Your task to perform on an android device: Is it going to rain this weekend? Image 0: 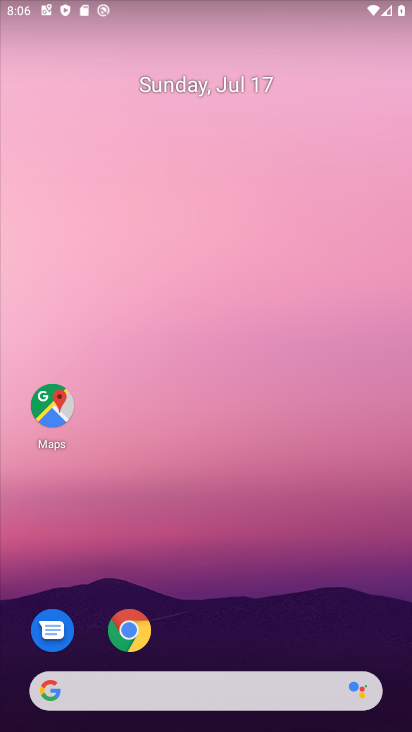
Step 0: click (0, 701)
Your task to perform on an android device: Is it going to rain this weekend? Image 1: 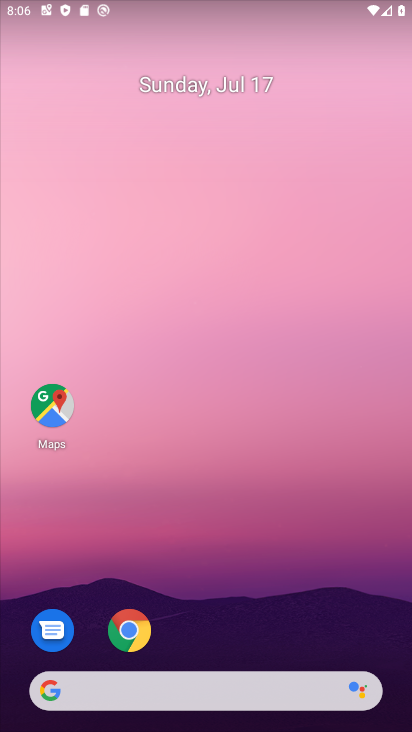
Step 1: click (239, 693)
Your task to perform on an android device: Is it going to rain this weekend? Image 2: 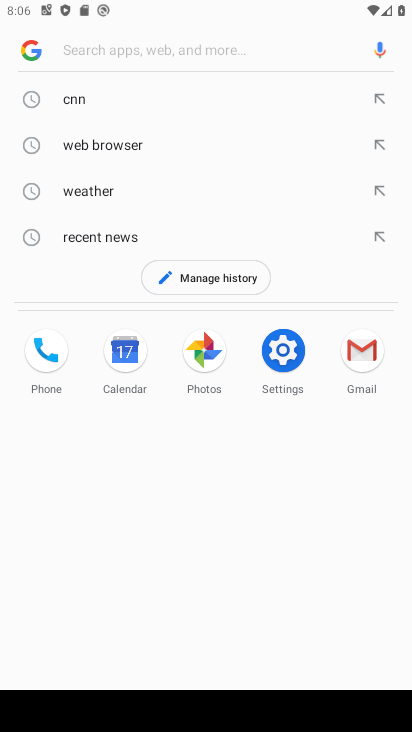
Step 2: type "Is it going to rain this weekend?"
Your task to perform on an android device: Is it going to rain this weekend? Image 3: 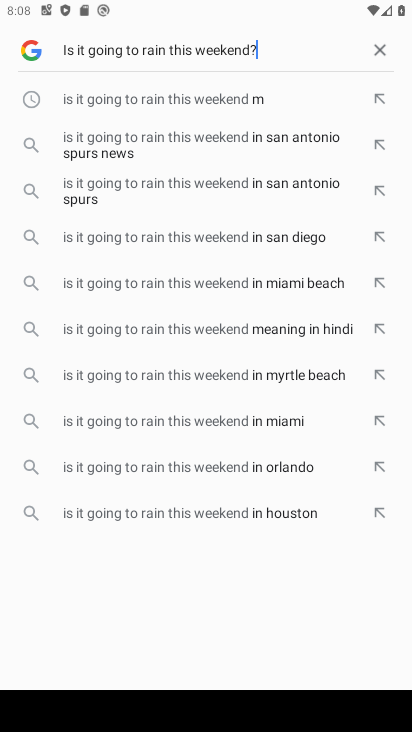
Step 3: press enter
Your task to perform on an android device: Is it going to rain this weekend? Image 4: 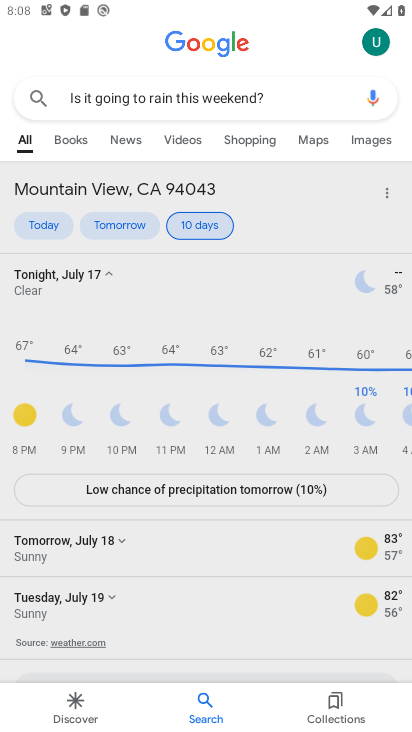
Step 4: task complete